Your task to perform on an android device: Open CNN.com Image 0: 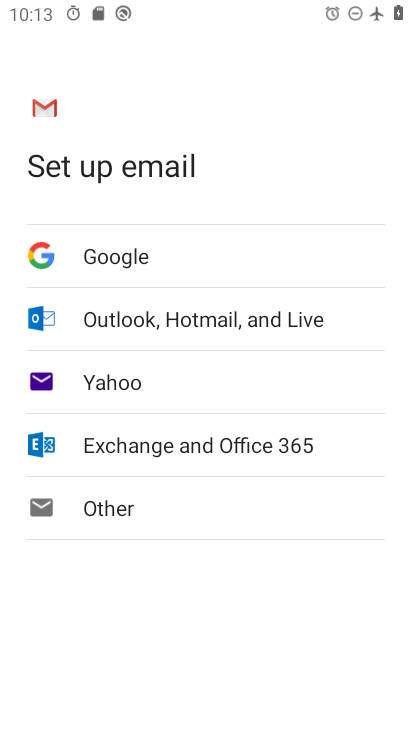
Step 0: press home button
Your task to perform on an android device: Open CNN.com Image 1: 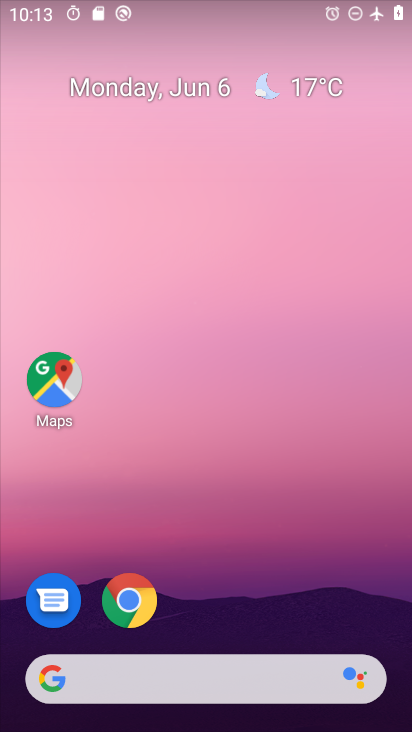
Step 1: click (146, 597)
Your task to perform on an android device: Open CNN.com Image 2: 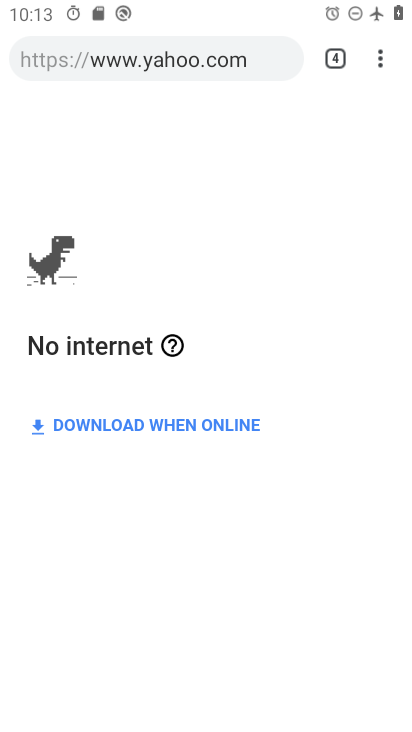
Step 2: click (345, 54)
Your task to perform on an android device: Open CNN.com Image 3: 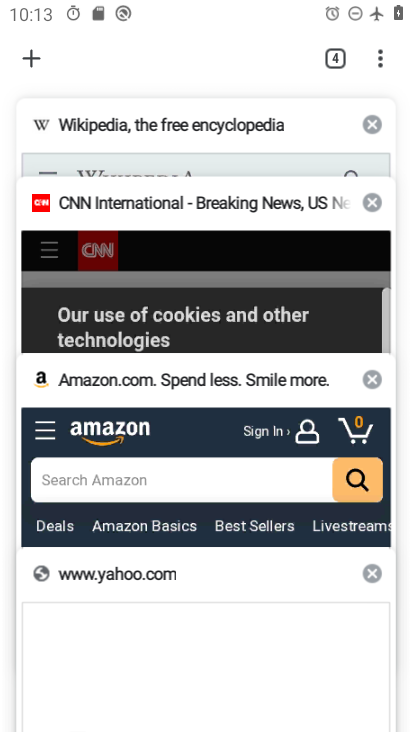
Step 3: click (179, 215)
Your task to perform on an android device: Open CNN.com Image 4: 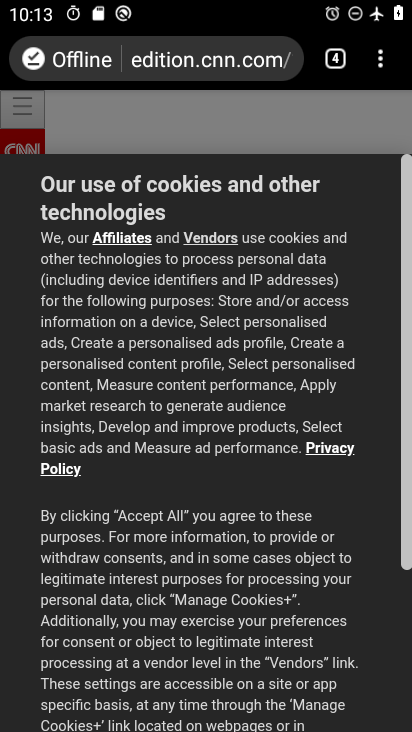
Step 4: task complete